Your task to perform on an android device: toggle improve location accuracy Image 0: 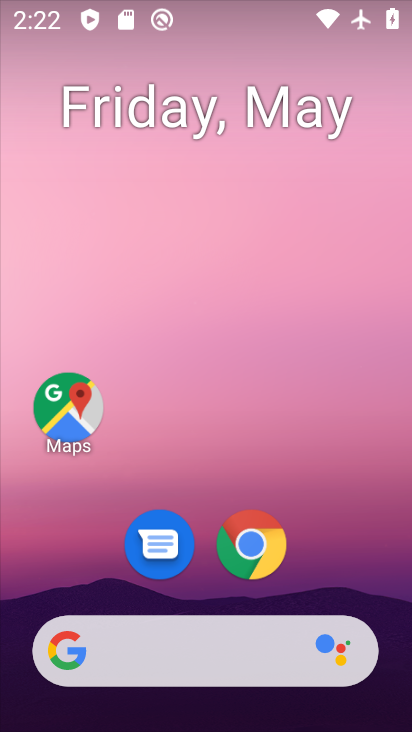
Step 0: drag from (233, 476) to (227, 44)
Your task to perform on an android device: toggle improve location accuracy Image 1: 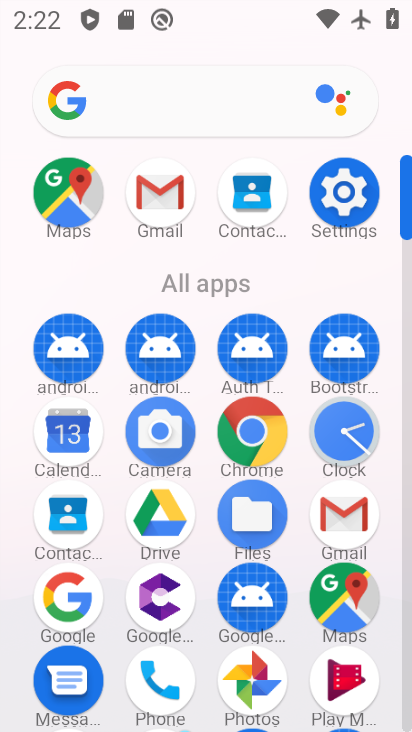
Step 1: click (331, 209)
Your task to perform on an android device: toggle improve location accuracy Image 2: 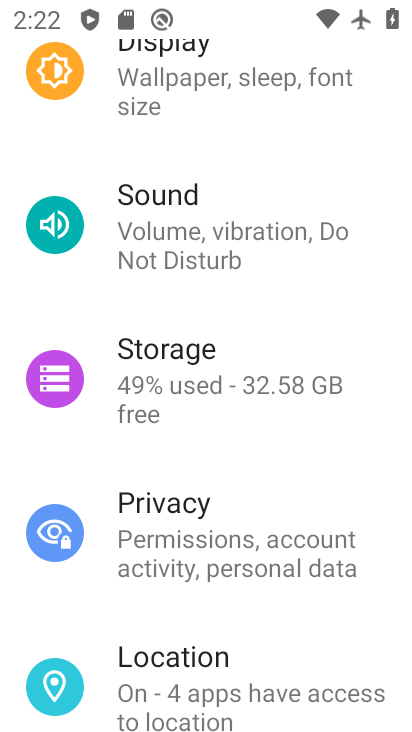
Step 2: click (170, 694)
Your task to perform on an android device: toggle improve location accuracy Image 3: 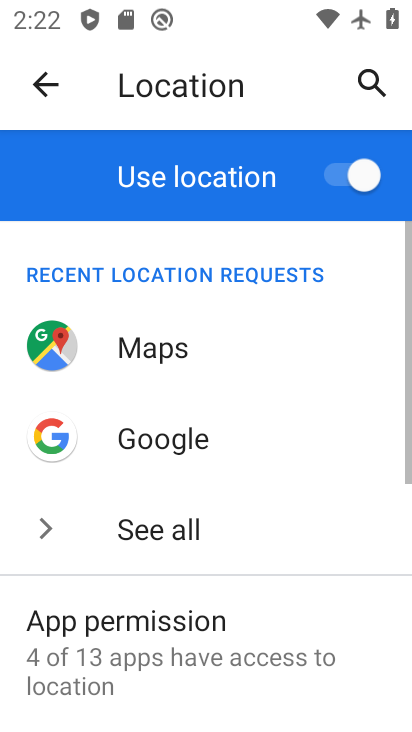
Step 3: drag from (168, 623) to (306, 94)
Your task to perform on an android device: toggle improve location accuracy Image 4: 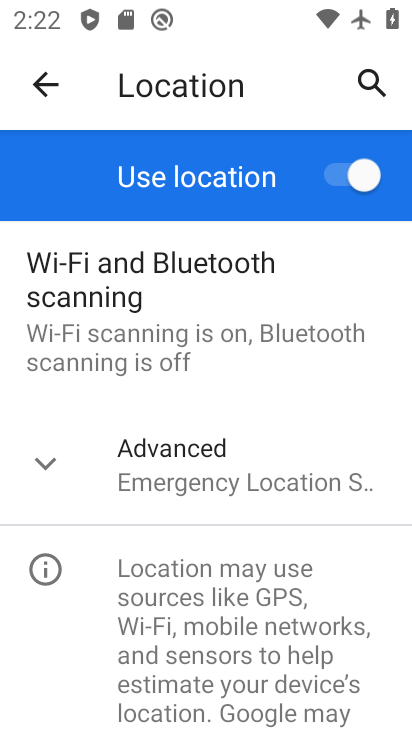
Step 4: click (173, 475)
Your task to perform on an android device: toggle improve location accuracy Image 5: 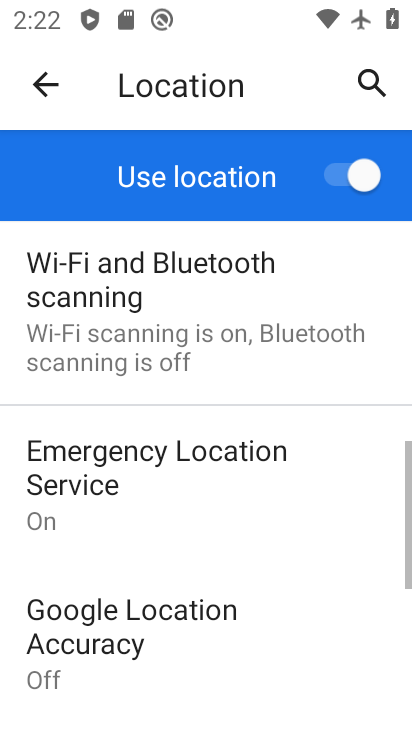
Step 5: click (152, 630)
Your task to perform on an android device: toggle improve location accuracy Image 6: 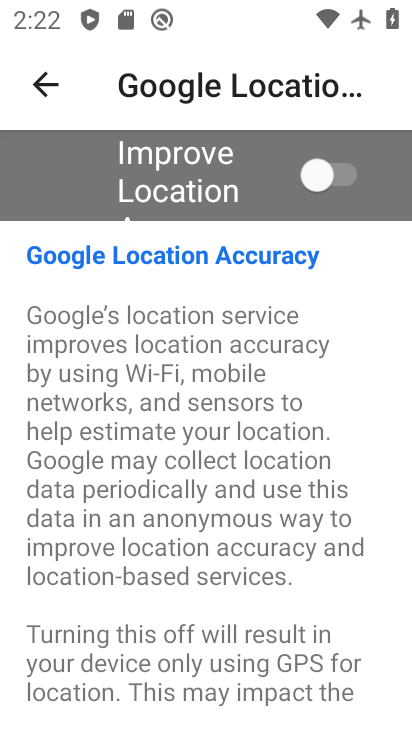
Step 6: click (309, 181)
Your task to perform on an android device: toggle improve location accuracy Image 7: 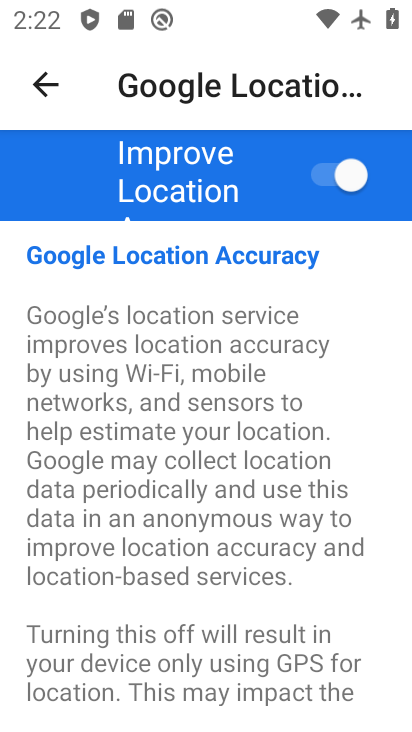
Step 7: task complete